Your task to perform on an android device: manage bookmarks in the chrome app Image 0: 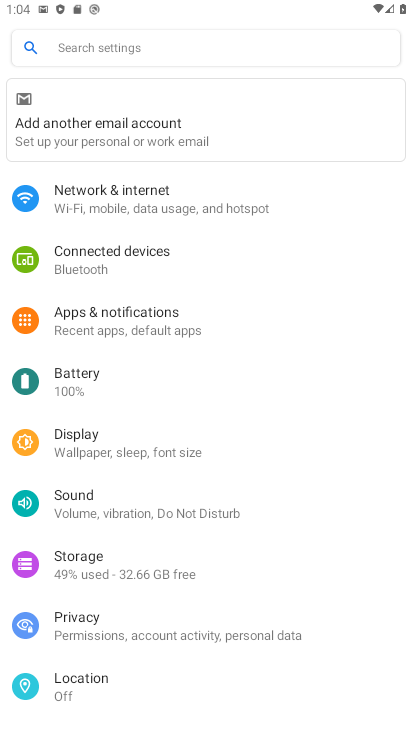
Step 0: press home button
Your task to perform on an android device: manage bookmarks in the chrome app Image 1: 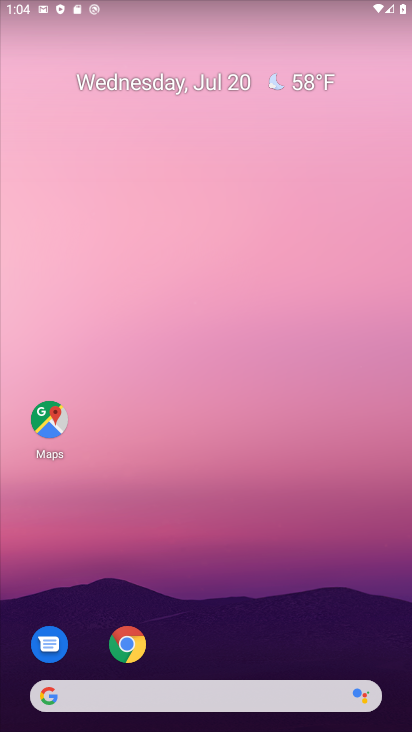
Step 1: click (129, 640)
Your task to perform on an android device: manage bookmarks in the chrome app Image 2: 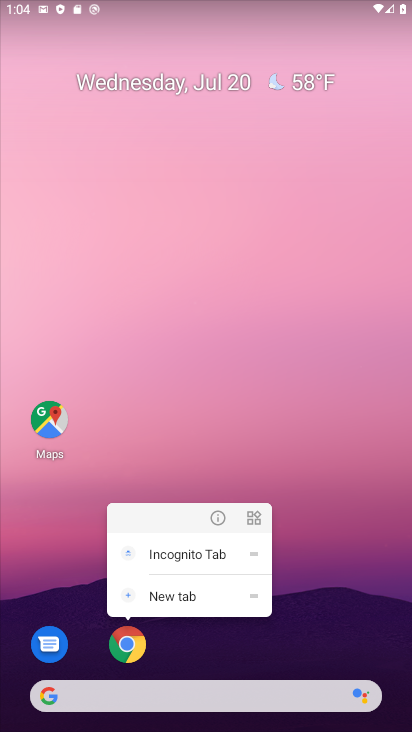
Step 2: click (129, 642)
Your task to perform on an android device: manage bookmarks in the chrome app Image 3: 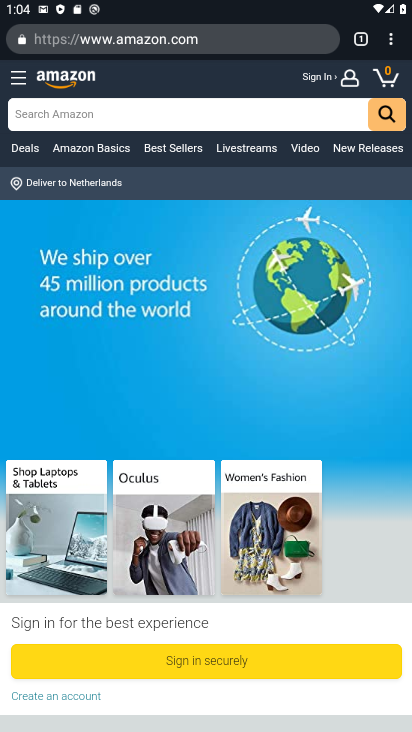
Step 3: click (387, 43)
Your task to perform on an android device: manage bookmarks in the chrome app Image 4: 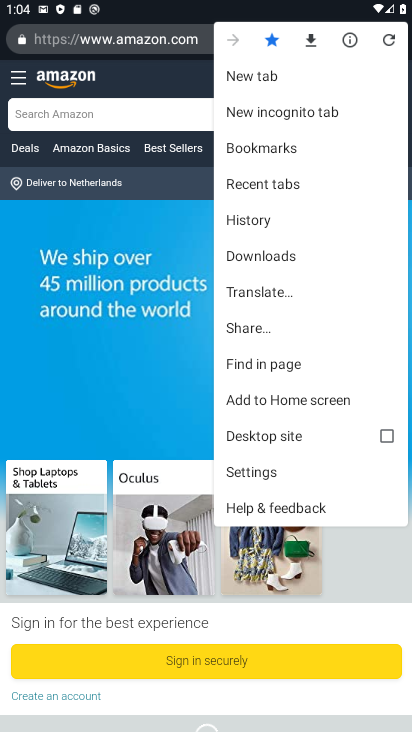
Step 4: click (277, 146)
Your task to perform on an android device: manage bookmarks in the chrome app Image 5: 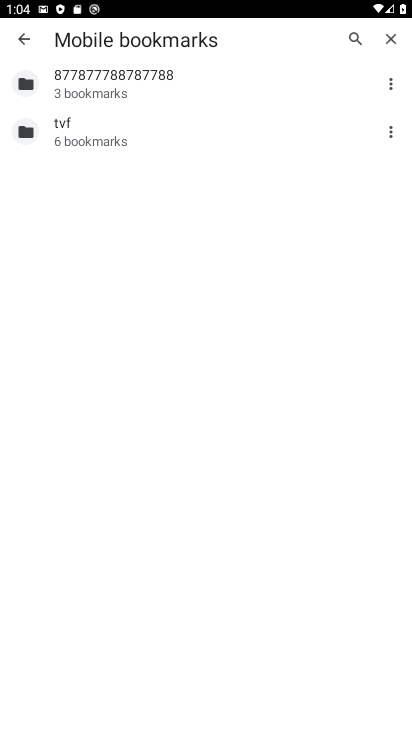
Step 5: click (128, 133)
Your task to perform on an android device: manage bookmarks in the chrome app Image 6: 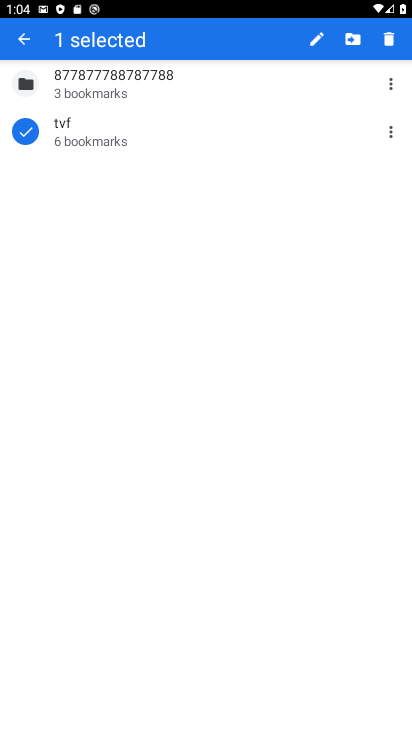
Step 6: click (393, 32)
Your task to perform on an android device: manage bookmarks in the chrome app Image 7: 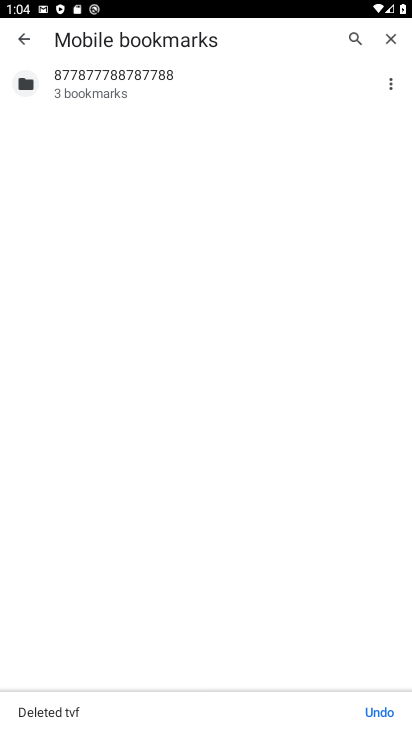
Step 7: task complete